Your task to perform on an android device: Go to Google Image 0: 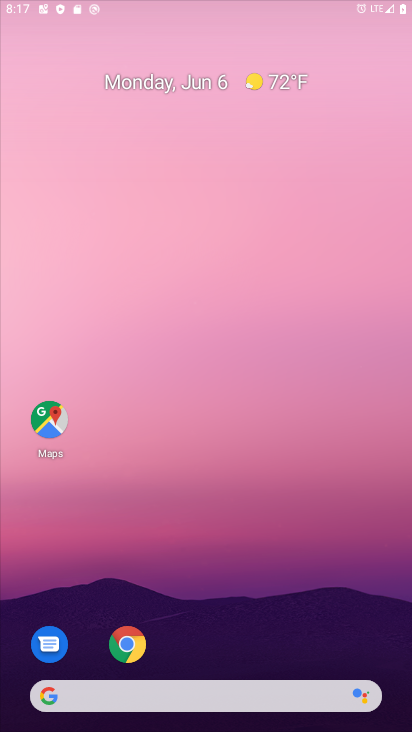
Step 0: drag from (274, 711) to (369, 266)
Your task to perform on an android device: Go to Google Image 1: 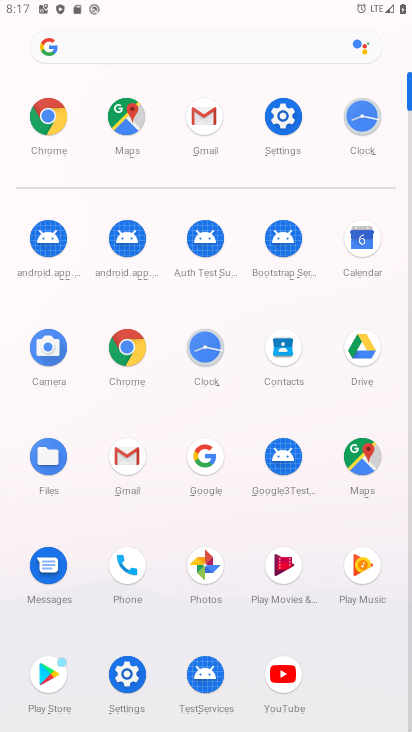
Step 1: click (47, 36)
Your task to perform on an android device: Go to Google Image 2: 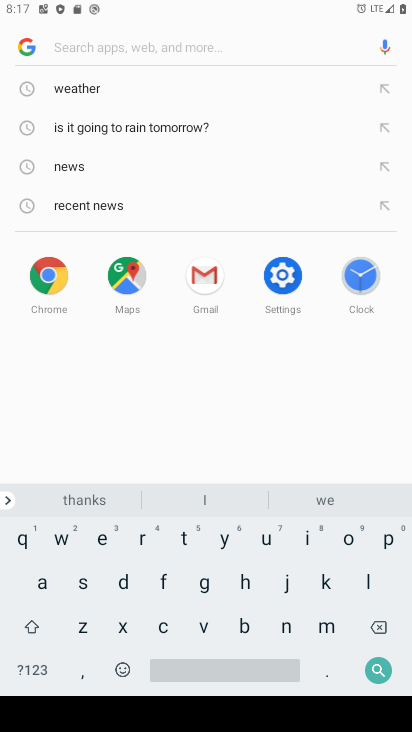
Step 2: click (25, 42)
Your task to perform on an android device: Go to Google Image 3: 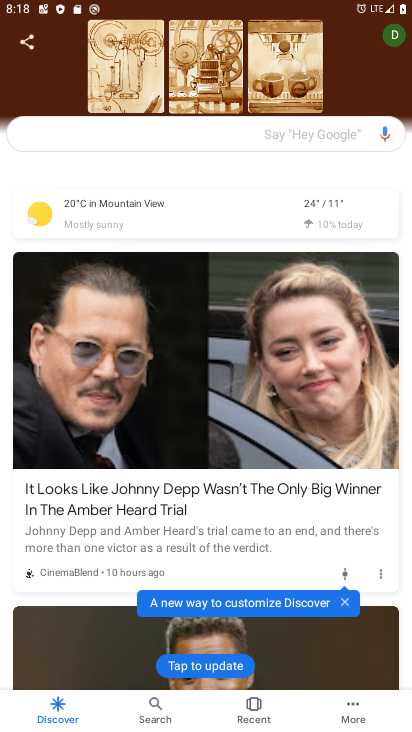
Step 3: task complete